Your task to perform on an android device: check the backup settings in the google photos Image 0: 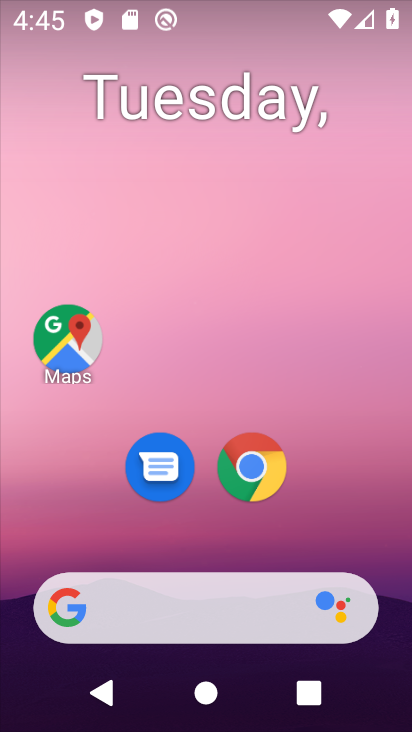
Step 0: click (288, 145)
Your task to perform on an android device: check the backup settings in the google photos Image 1: 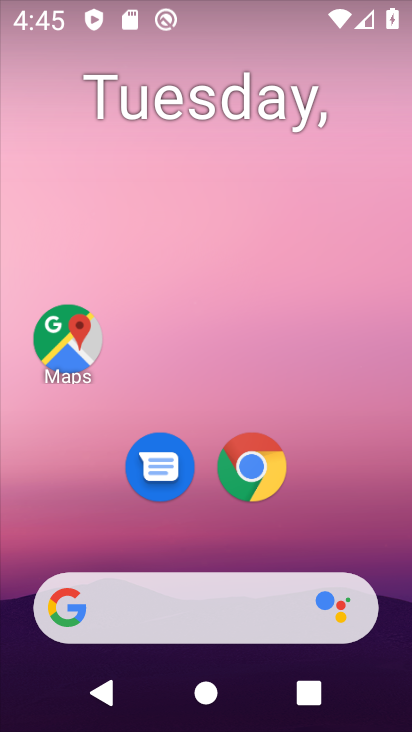
Step 1: drag from (208, 255) to (211, 135)
Your task to perform on an android device: check the backup settings in the google photos Image 2: 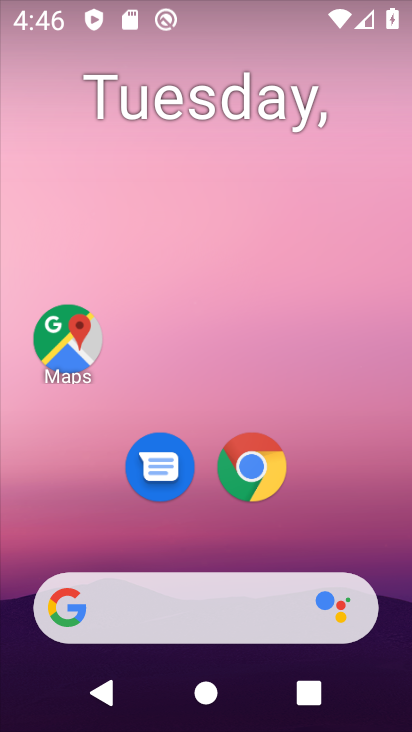
Step 2: drag from (206, 510) to (244, 182)
Your task to perform on an android device: check the backup settings in the google photos Image 3: 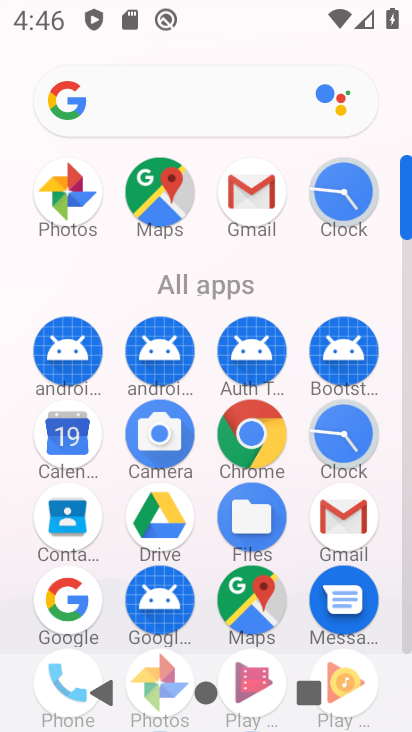
Step 3: click (95, 205)
Your task to perform on an android device: check the backup settings in the google photos Image 4: 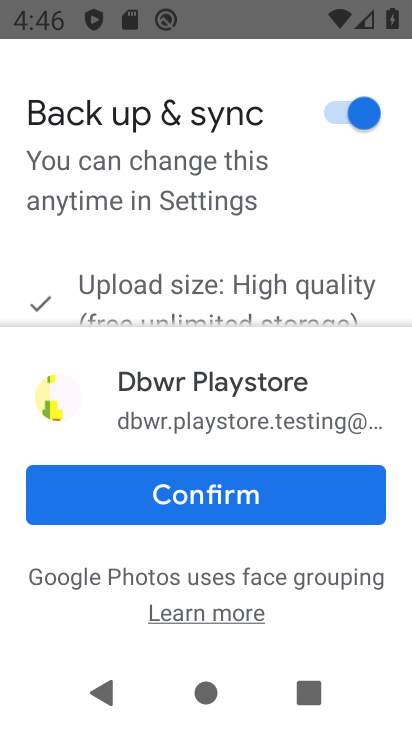
Step 4: click (194, 500)
Your task to perform on an android device: check the backup settings in the google photos Image 5: 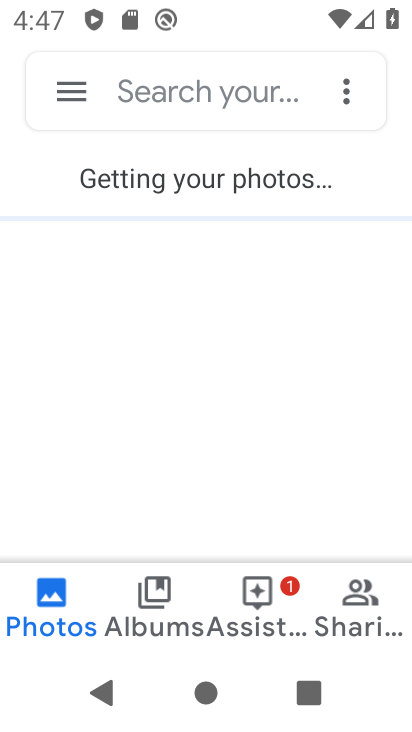
Step 5: click (73, 92)
Your task to perform on an android device: check the backup settings in the google photos Image 6: 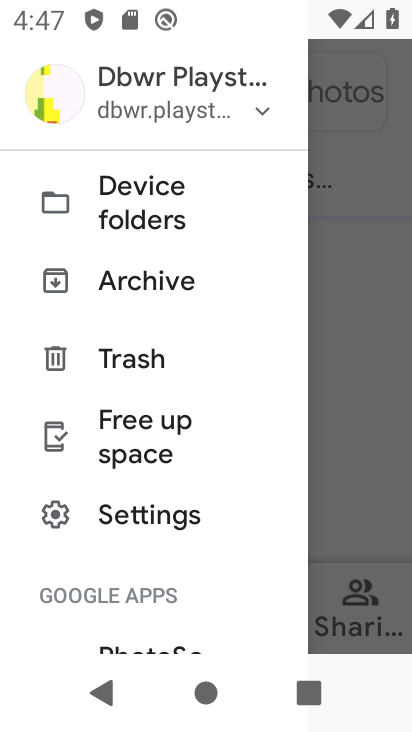
Step 6: click (143, 505)
Your task to perform on an android device: check the backup settings in the google photos Image 7: 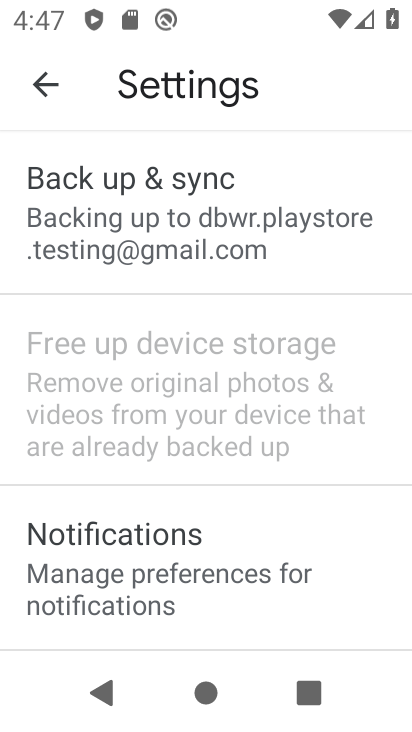
Step 7: click (193, 259)
Your task to perform on an android device: check the backup settings in the google photos Image 8: 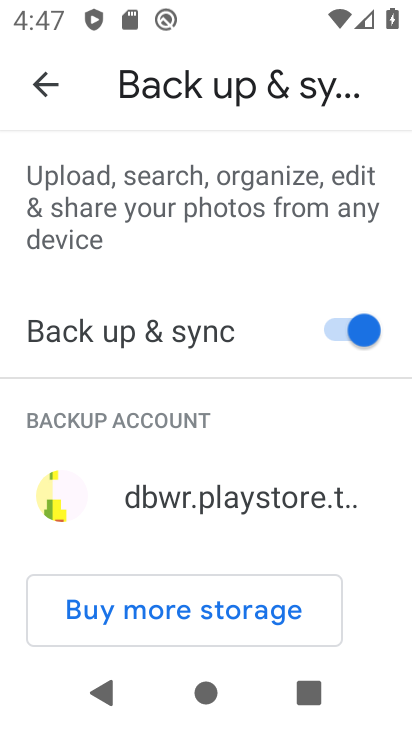
Step 8: task complete